Your task to perform on an android device: Check the weather Image 0: 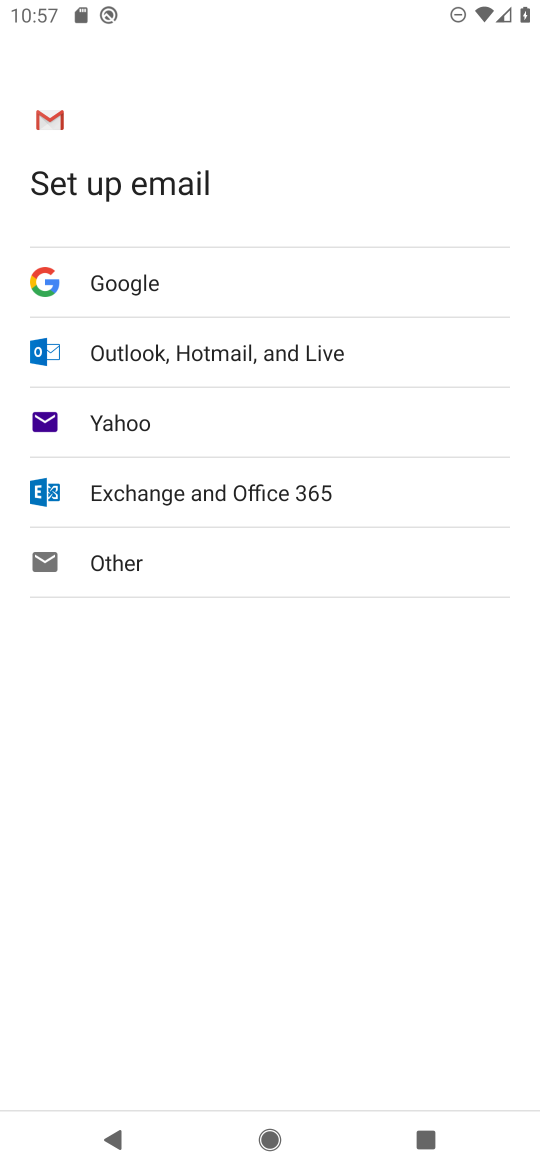
Step 0: press home button
Your task to perform on an android device: Check the weather Image 1: 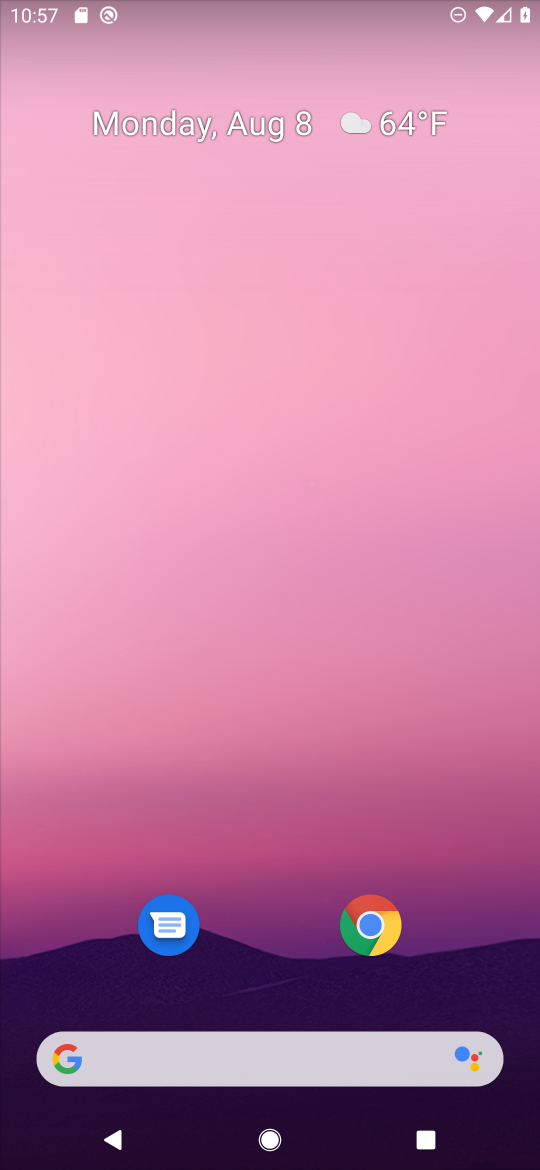
Step 1: click (394, 119)
Your task to perform on an android device: Check the weather Image 2: 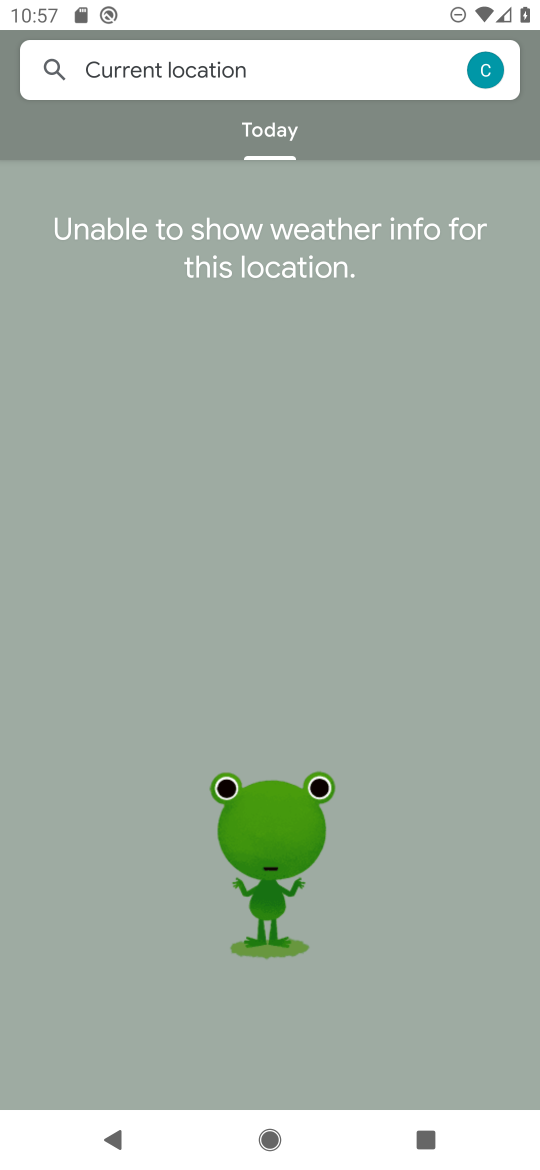
Step 2: task complete